Your task to perform on an android device: Go to wifi settings Image 0: 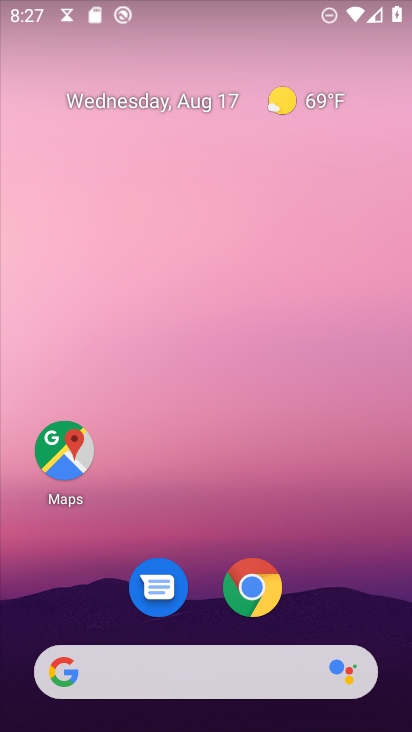
Step 0: drag from (21, 708) to (105, 301)
Your task to perform on an android device: Go to wifi settings Image 1: 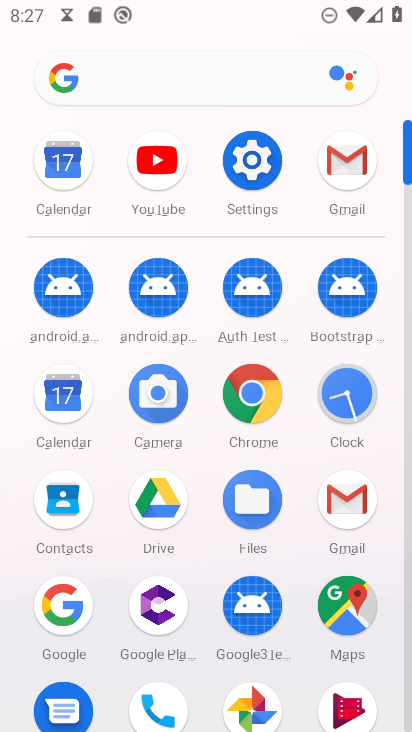
Step 1: click (256, 166)
Your task to perform on an android device: Go to wifi settings Image 2: 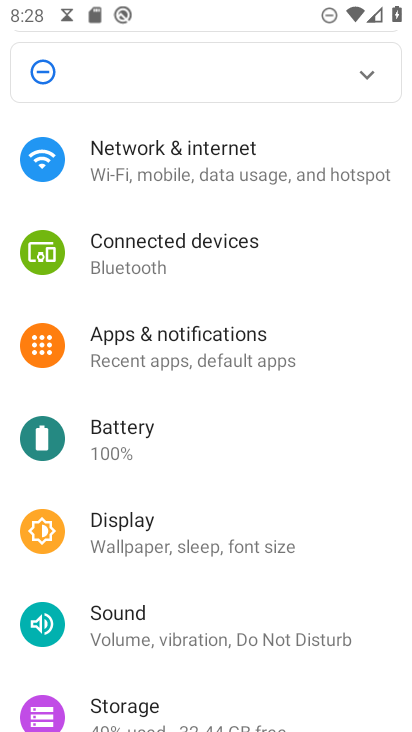
Step 2: click (187, 159)
Your task to perform on an android device: Go to wifi settings Image 3: 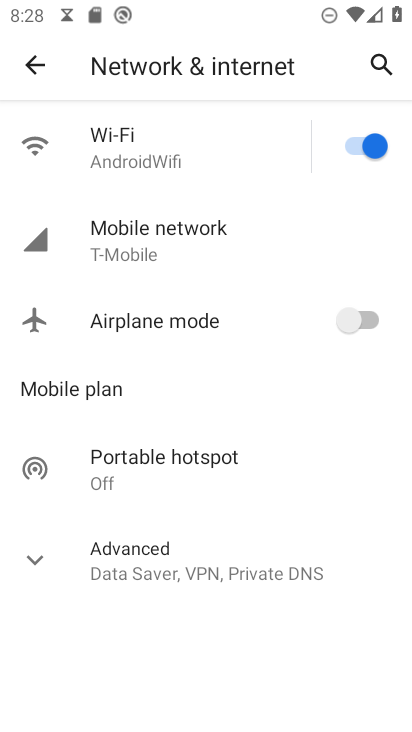
Step 3: task complete